Your task to perform on an android device: toggle improve location accuracy Image 0: 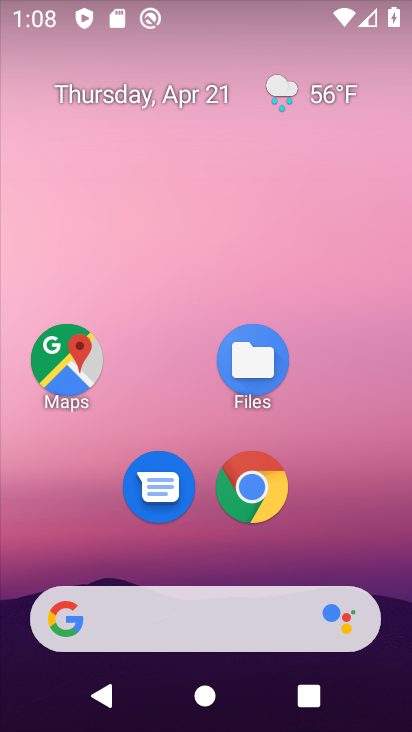
Step 0: drag from (365, 483) to (356, 173)
Your task to perform on an android device: toggle improve location accuracy Image 1: 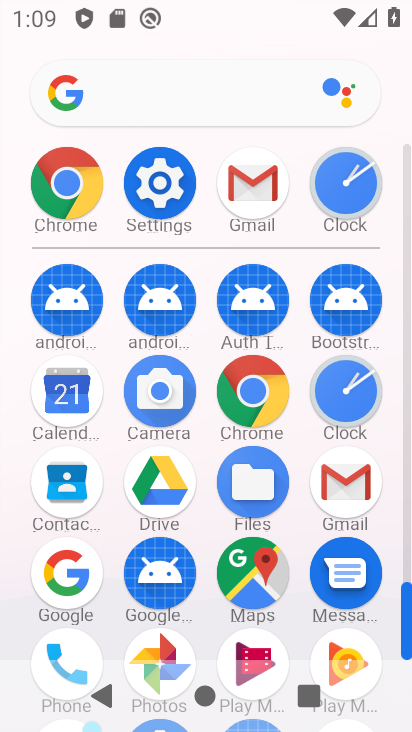
Step 1: click (160, 202)
Your task to perform on an android device: toggle improve location accuracy Image 2: 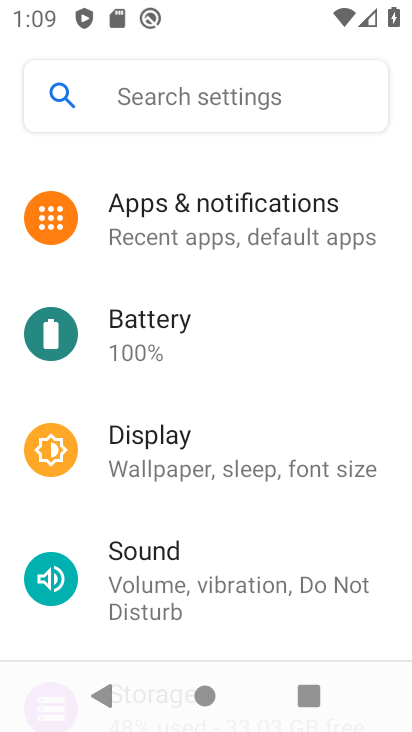
Step 2: drag from (225, 541) to (258, 256)
Your task to perform on an android device: toggle improve location accuracy Image 3: 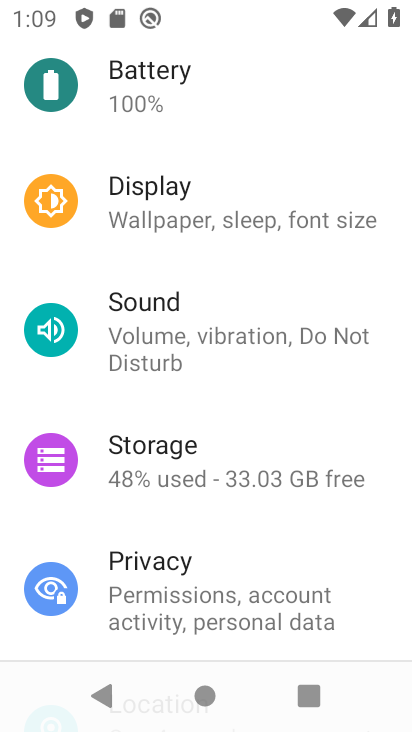
Step 3: drag from (224, 510) to (264, 234)
Your task to perform on an android device: toggle improve location accuracy Image 4: 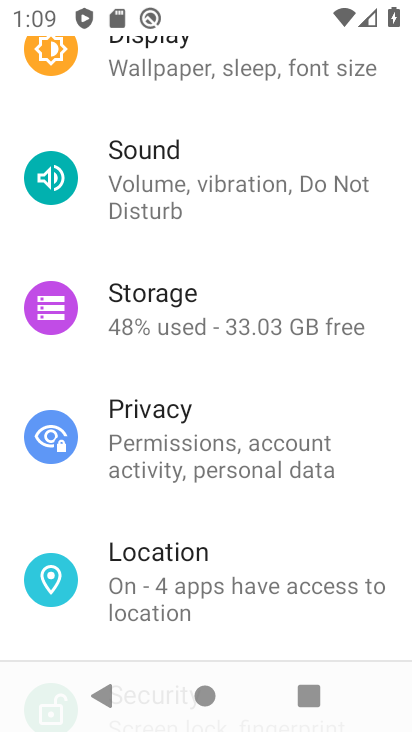
Step 4: click (201, 564)
Your task to perform on an android device: toggle improve location accuracy Image 5: 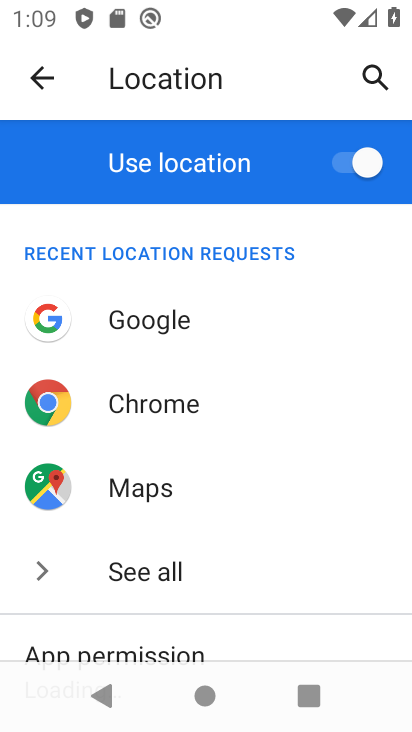
Step 5: drag from (280, 617) to (289, 343)
Your task to perform on an android device: toggle improve location accuracy Image 6: 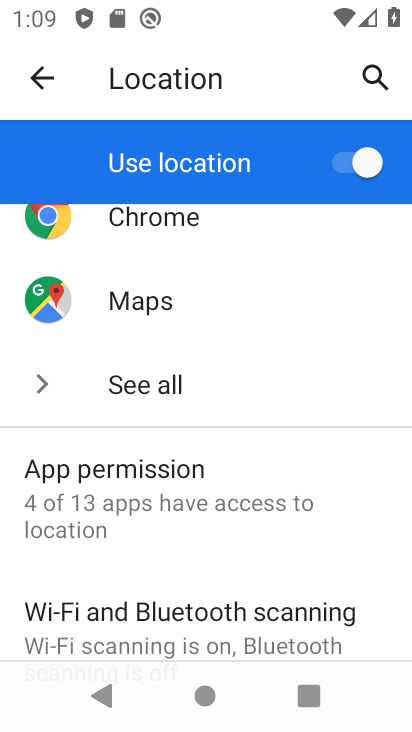
Step 6: drag from (266, 564) to (284, 389)
Your task to perform on an android device: toggle improve location accuracy Image 7: 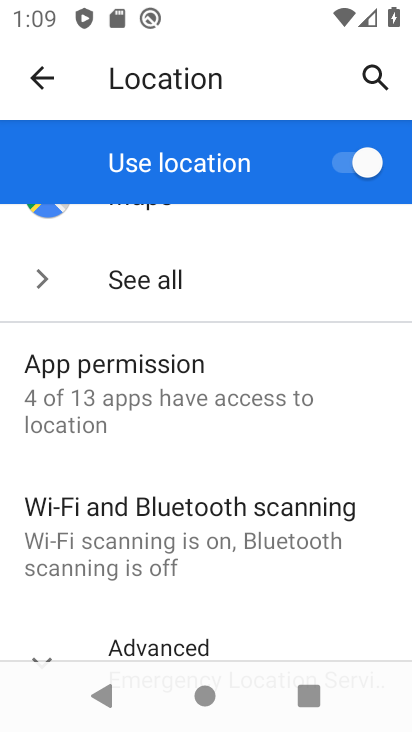
Step 7: drag from (282, 621) to (325, 342)
Your task to perform on an android device: toggle improve location accuracy Image 8: 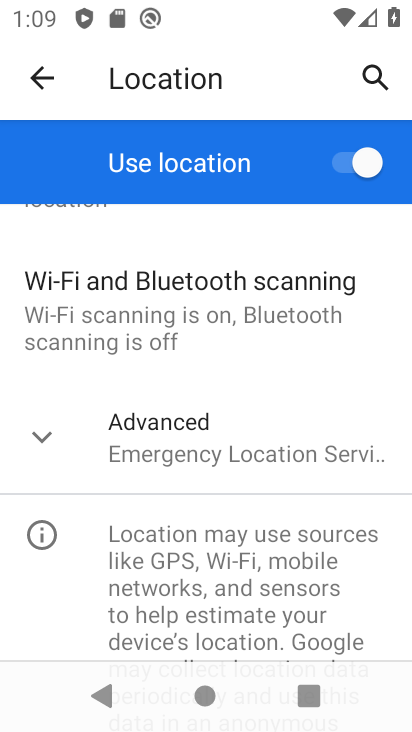
Step 8: click (227, 454)
Your task to perform on an android device: toggle improve location accuracy Image 9: 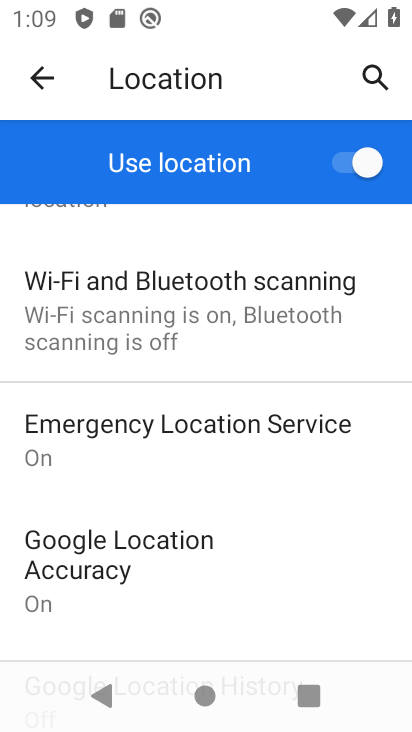
Step 9: drag from (232, 597) to (307, 327)
Your task to perform on an android device: toggle improve location accuracy Image 10: 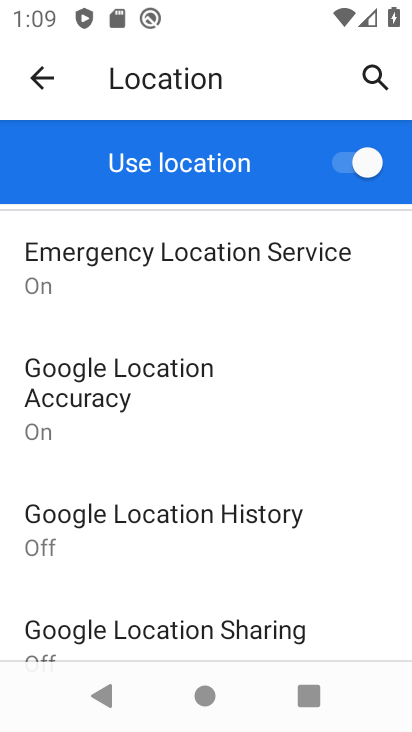
Step 10: click (77, 367)
Your task to perform on an android device: toggle improve location accuracy Image 11: 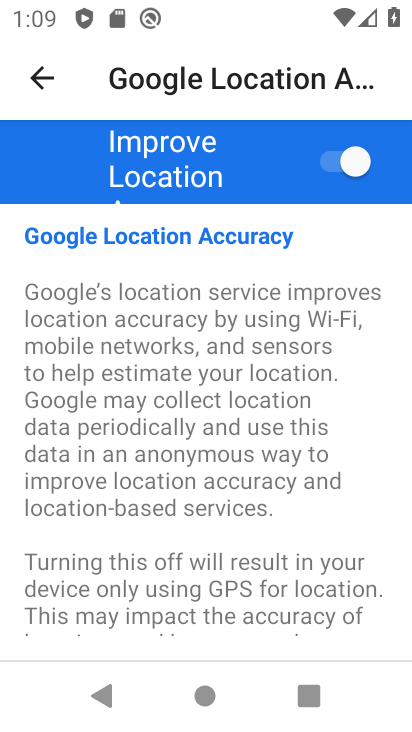
Step 11: click (324, 168)
Your task to perform on an android device: toggle improve location accuracy Image 12: 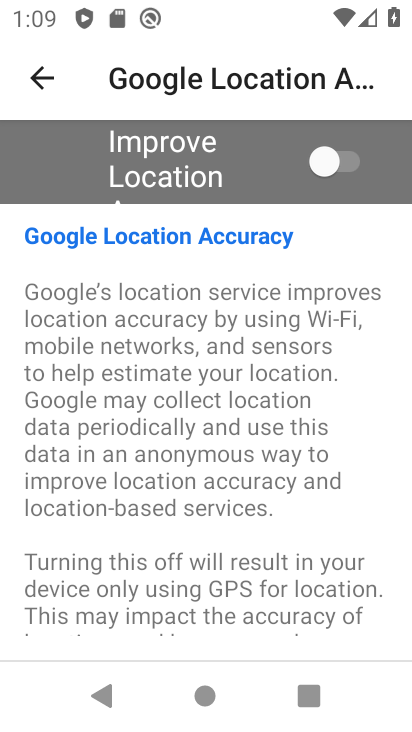
Step 12: task complete